Your task to perform on an android device: Go to Yahoo.com Image 0: 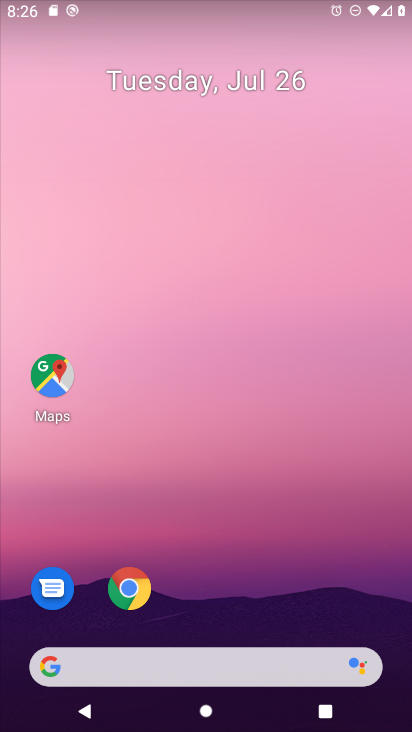
Step 0: drag from (205, 649) to (207, 273)
Your task to perform on an android device: Go to Yahoo.com Image 1: 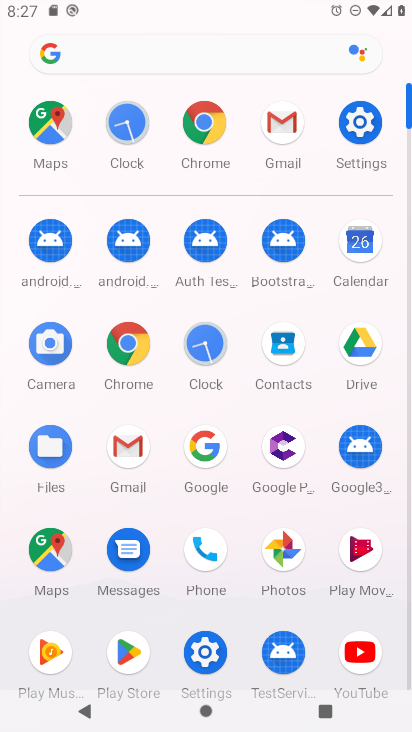
Step 1: click (212, 140)
Your task to perform on an android device: Go to Yahoo.com Image 2: 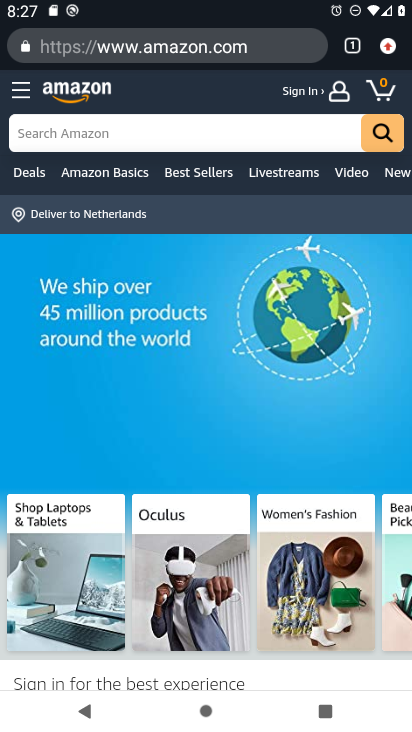
Step 2: click (262, 53)
Your task to perform on an android device: Go to Yahoo.com Image 3: 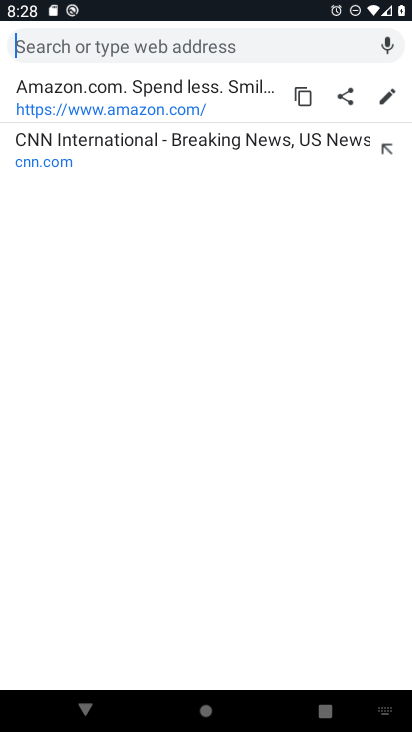
Step 3: type "yahoo"
Your task to perform on an android device: Go to Yahoo.com Image 4: 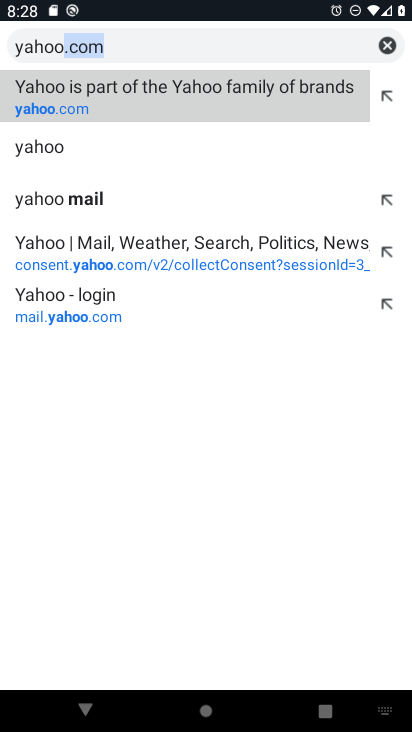
Step 4: click (110, 105)
Your task to perform on an android device: Go to Yahoo.com Image 5: 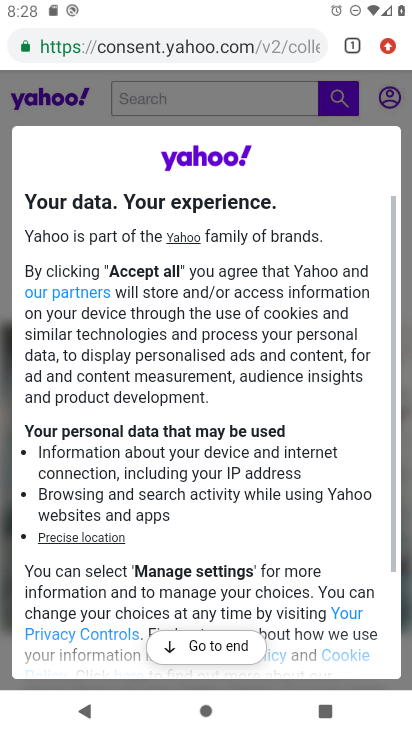
Step 5: task complete